Your task to perform on an android device: find snoozed emails in the gmail app Image 0: 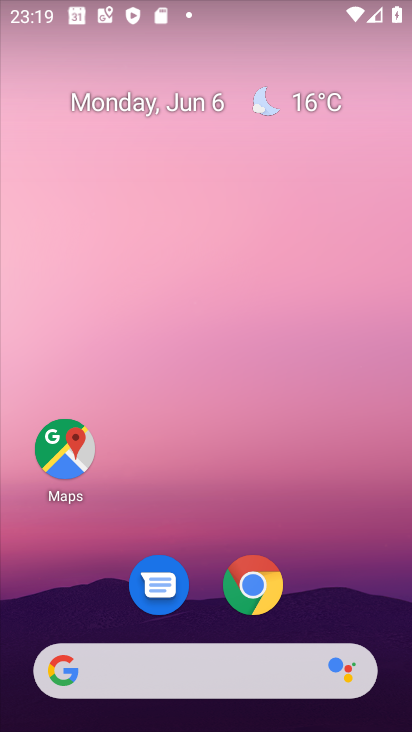
Step 0: drag from (226, 472) to (244, 1)
Your task to perform on an android device: find snoozed emails in the gmail app Image 1: 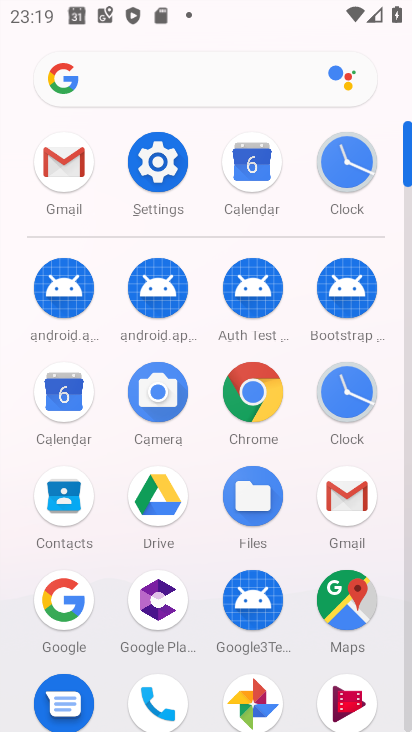
Step 1: click (56, 151)
Your task to perform on an android device: find snoozed emails in the gmail app Image 2: 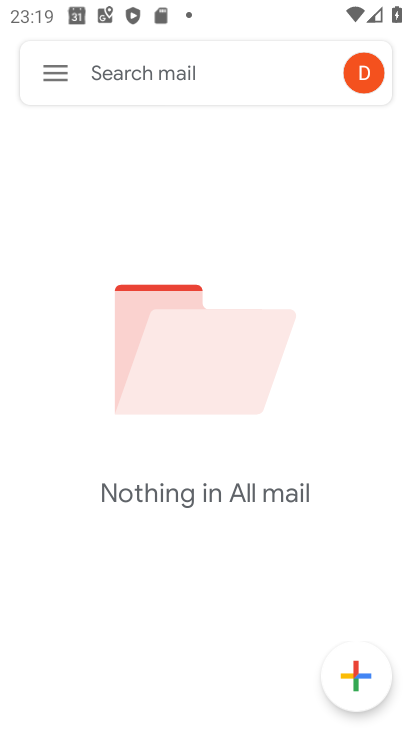
Step 2: click (48, 55)
Your task to perform on an android device: find snoozed emails in the gmail app Image 3: 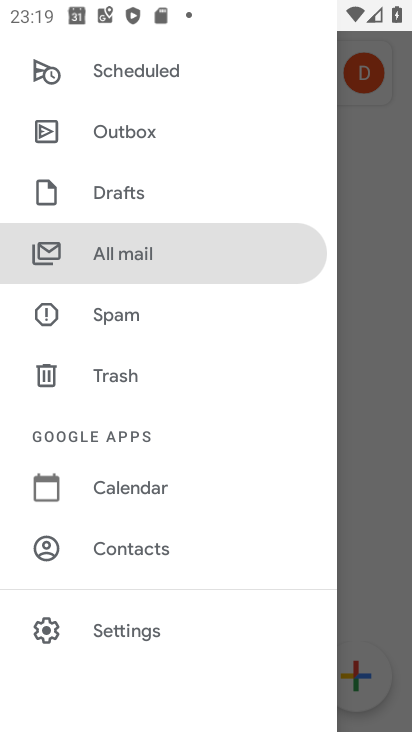
Step 3: drag from (201, 144) to (244, 469)
Your task to perform on an android device: find snoozed emails in the gmail app Image 4: 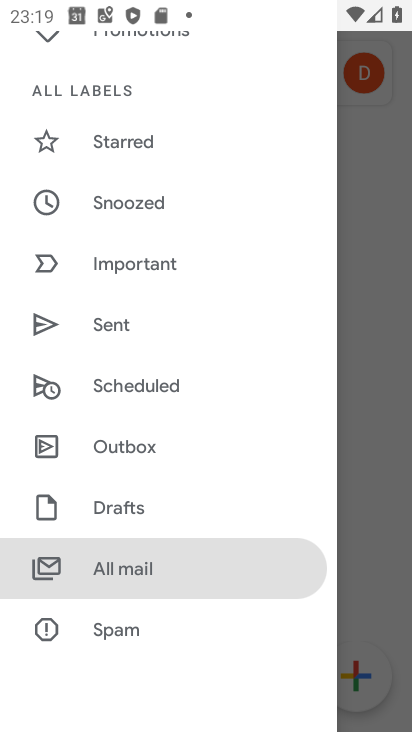
Step 4: click (120, 199)
Your task to perform on an android device: find snoozed emails in the gmail app Image 5: 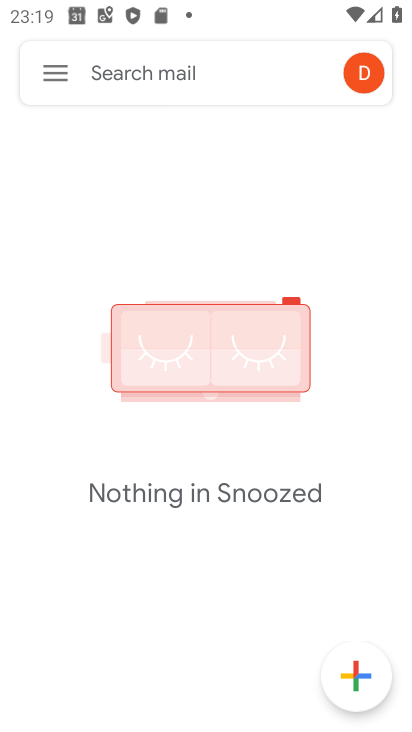
Step 5: task complete